Your task to perform on an android device: Search for sushi restaurants on Maps Image 0: 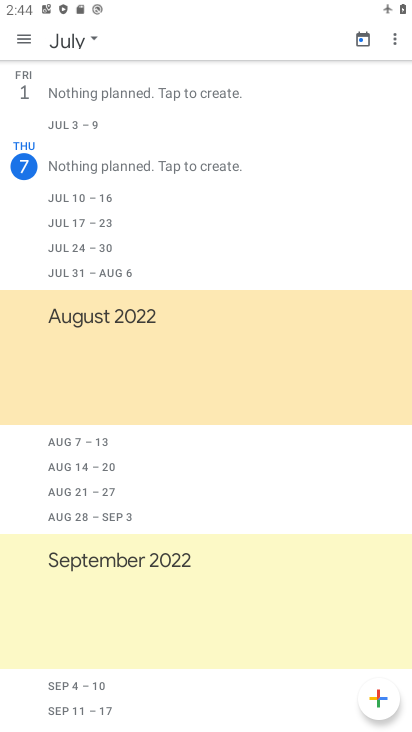
Step 0: press home button
Your task to perform on an android device: Search for sushi restaurants on Maps Image 1: 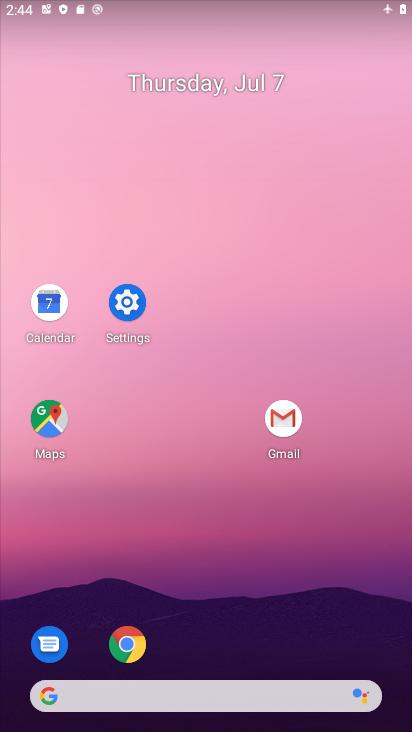
Step 1: click (46, 419)
Your task to perform on an android device: Search for sushi restaurants on Maps Image 2: 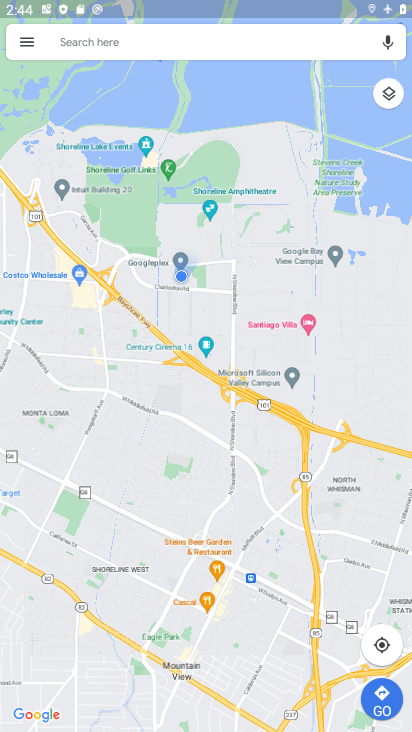
Step 2: click (174, 47)
Your task to perform on an android device: Search for sushi restaurants on Maps Image 3: 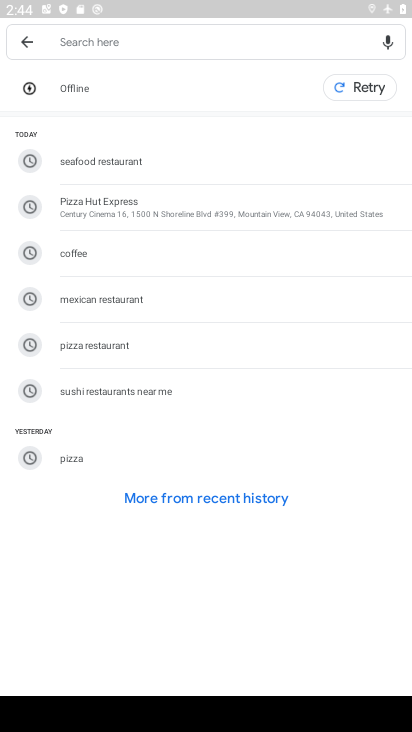
Step 3: type "sushi restaurants"
Your task to perform on an android device: Search for sushi restaurants on Maps Image 4: 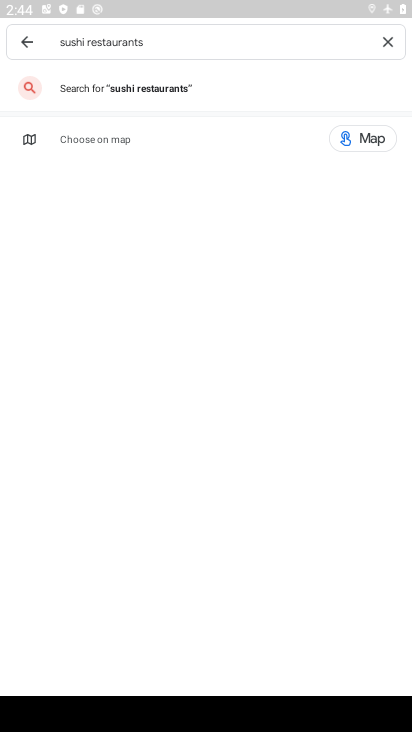
Step 4: click (132, 88)
Your task to perform on an android device: Search for sushi restaurants on Maps Image 5: 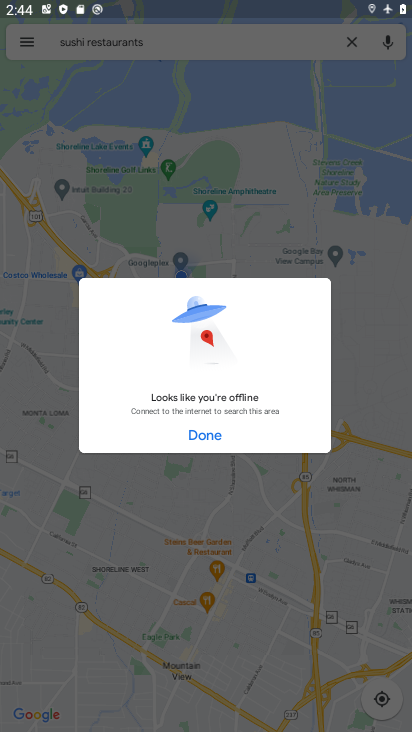
Step 5: task complete